Your task to perform on an android device: open app "Grab" Image 0: 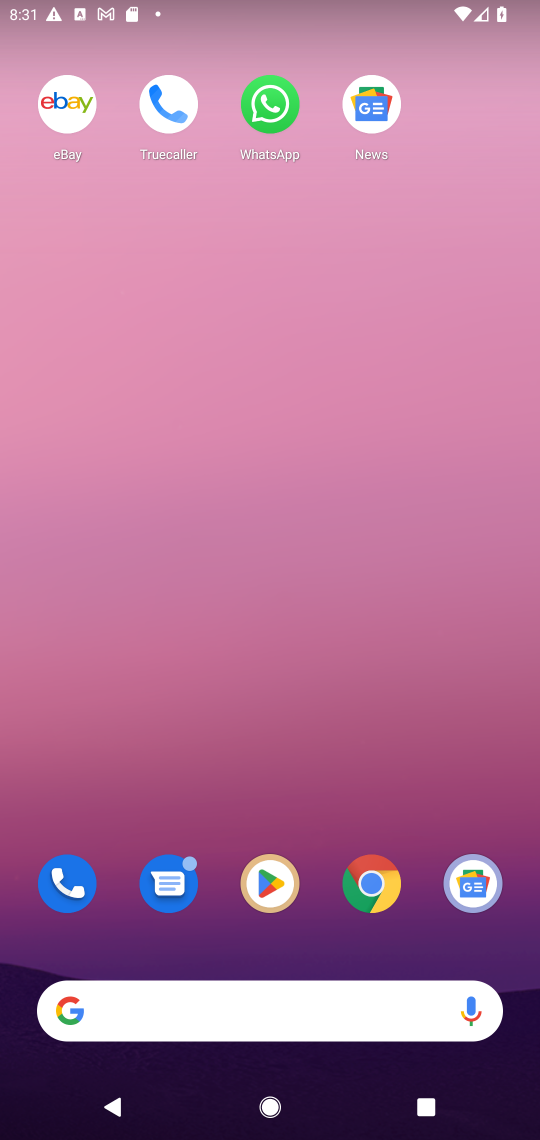
Step 0: click (282, 882)
Your task to perform on an android device: open app "Grab" Image 1: 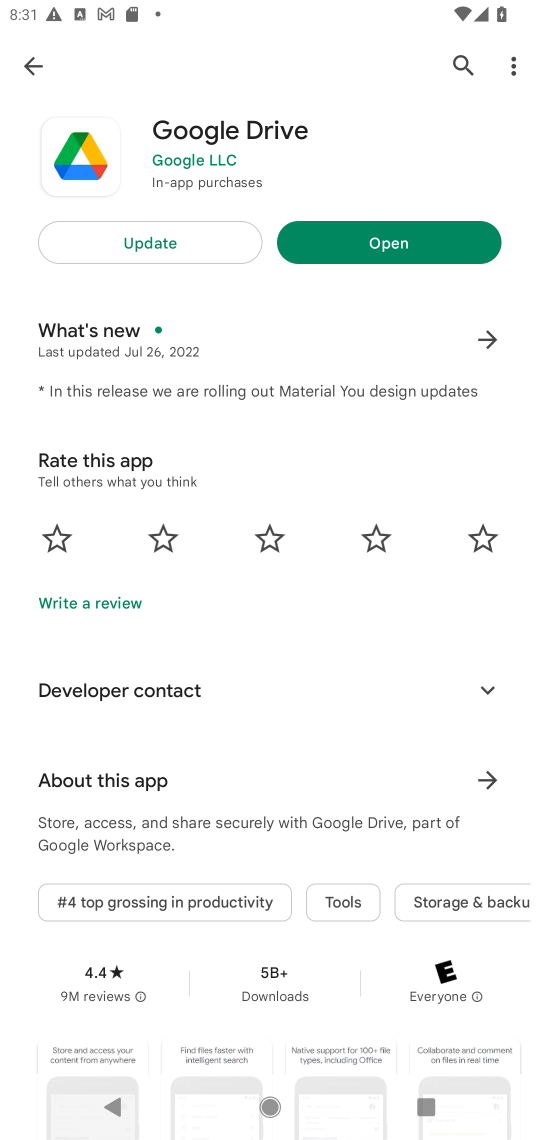
Step 1: click (467, 56)
Your task to perform on an android device: open app "Grab" Image 2: 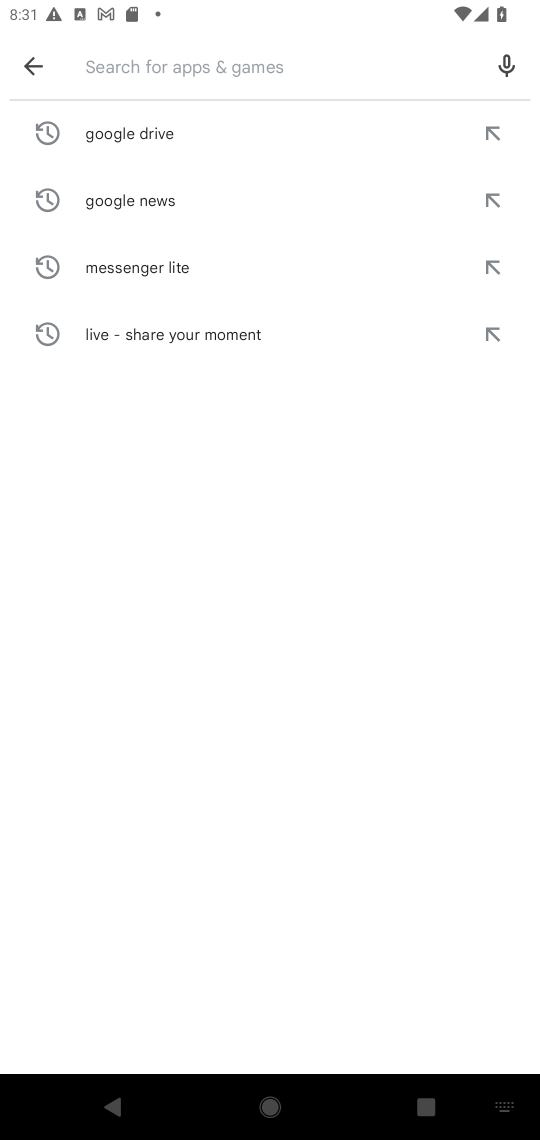
Step 2: type "Grab"
Your task to perform on an android device: open app "Grab" Image 3: 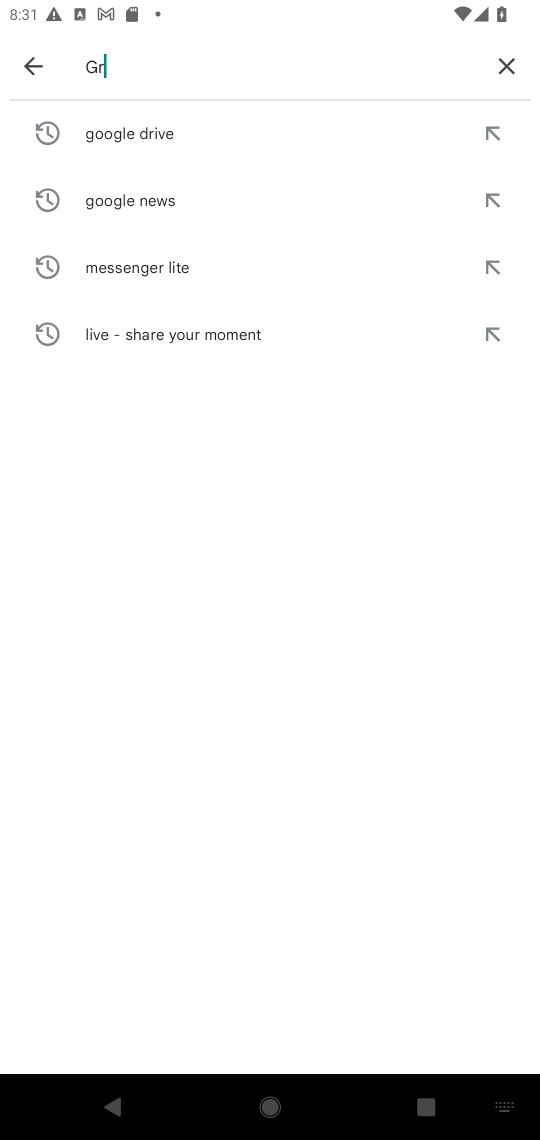
Step 3: type ""
Your task to perform on an android device: open app "Grab" Image 4: 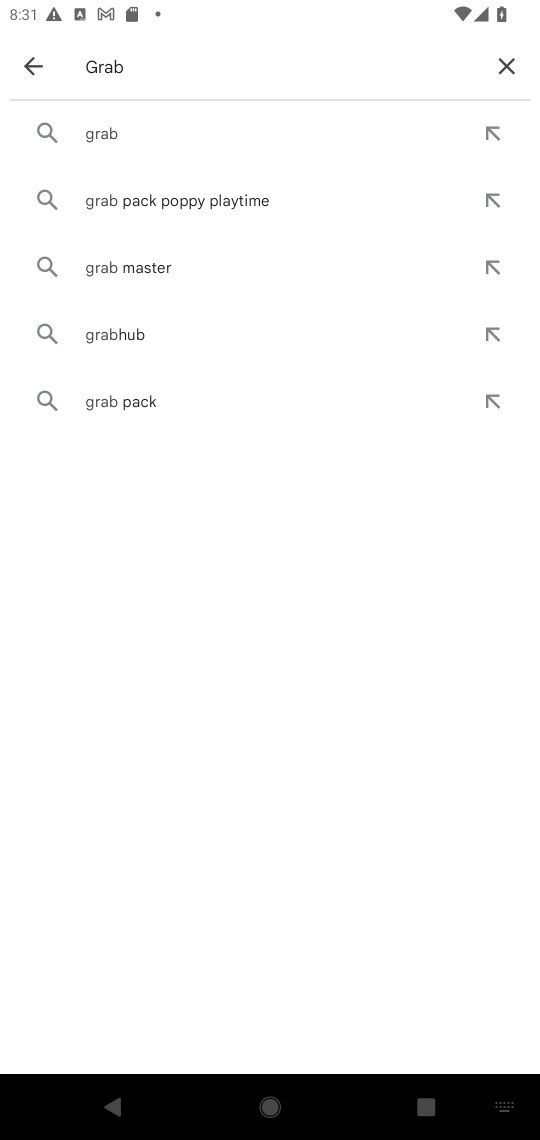
Step 4: click (110, 123)
Your task to perform on an android device: open app "Grab" Image 5: 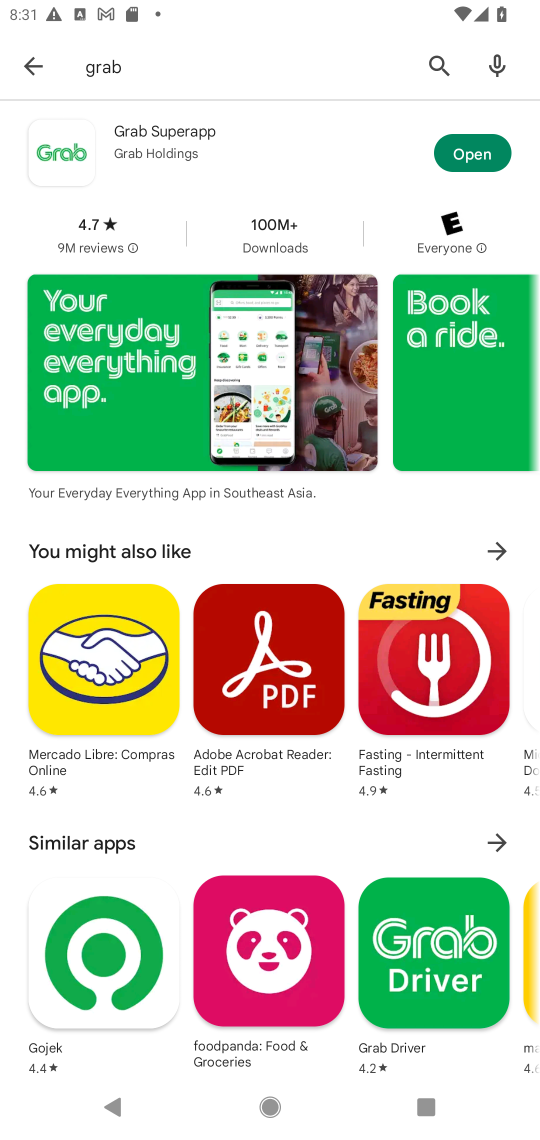
Step 5: click (472, 137)
Your task to perform on an android device: open app "Grab" Image 6: 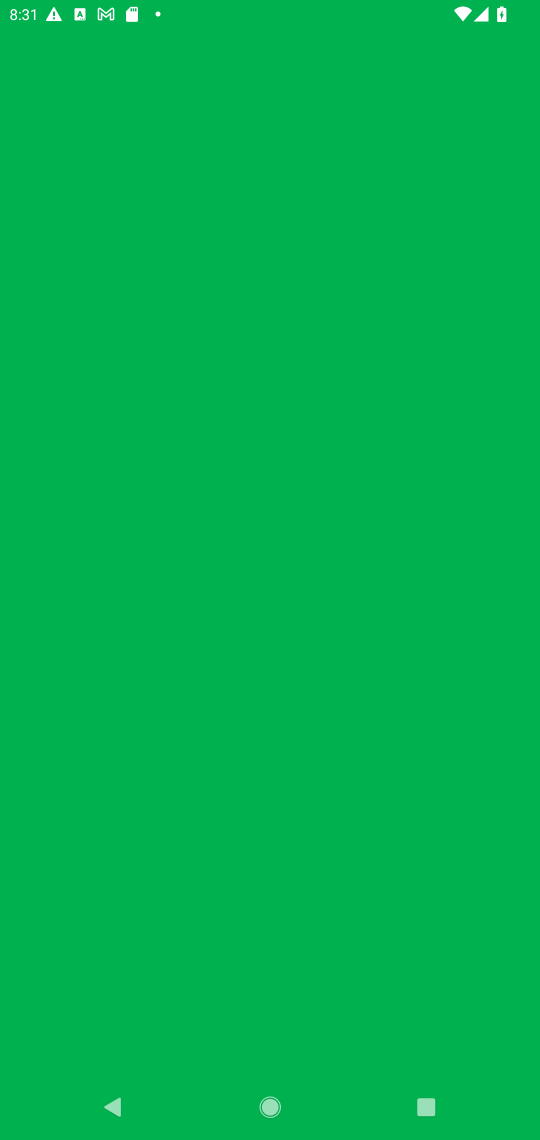
Step 6: task complete